Your task to perform on an android device: refresh tabs in the chrome app Image 0: 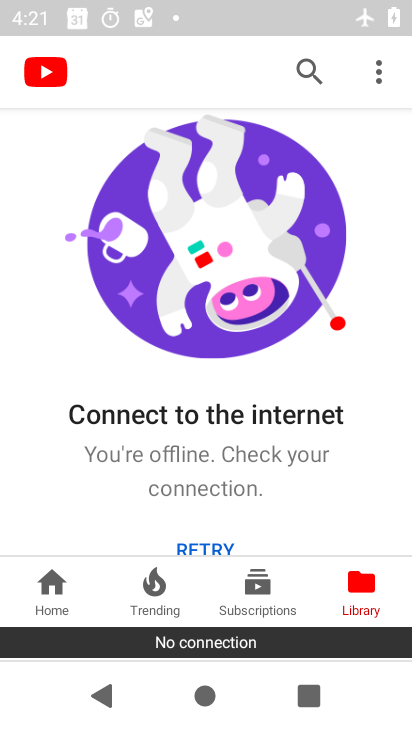
Step 0: press home button
Your task to perform on an android device: refresh tabs in the chrome app Image 1: 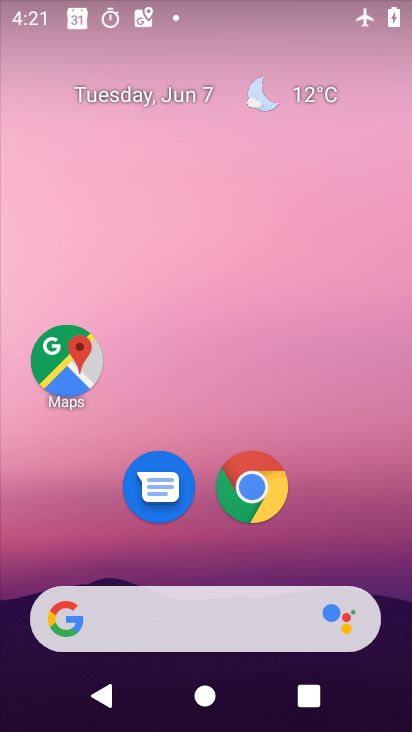
Step 1: click (256, 491)
Your task to perform on an android device: refresh tabs in the chrome app Image 2: 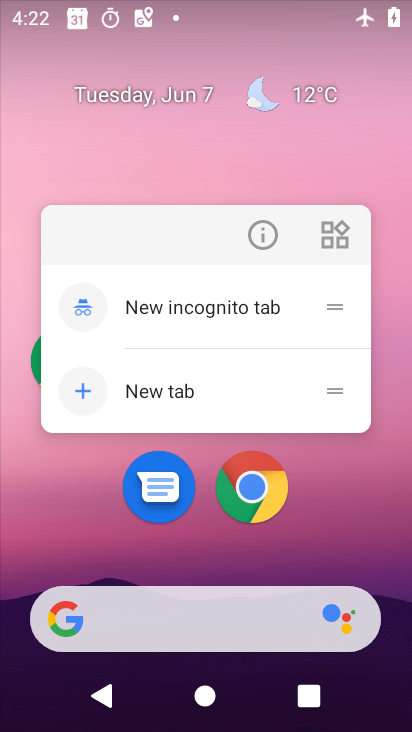
Step 2: click (260, 490)
Your task to perform on an android device: refresh tabs in the chrome app Image 3: 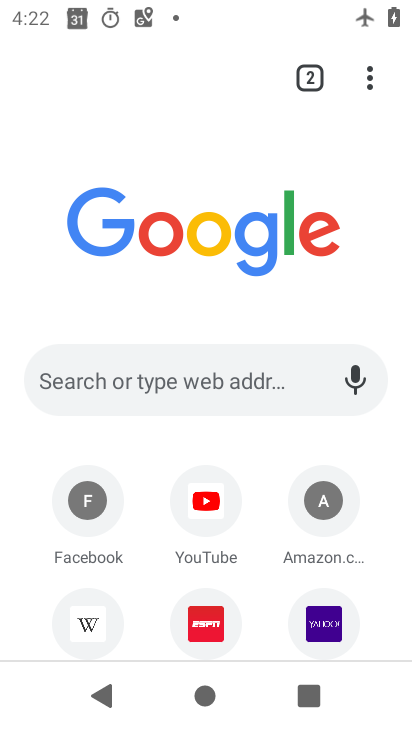
Step 3: click (367, 76)
Your task to perform on an android device: refresh tabs in the chrome app Image 4: 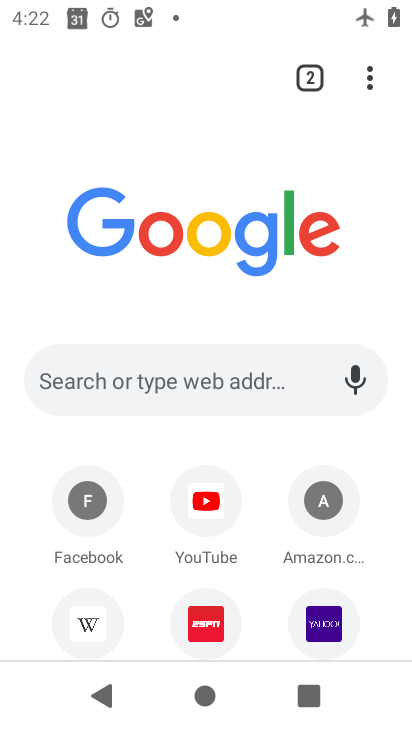
Step 4: task complete